Your task to perform on an android device: Open Android settings Image 0: 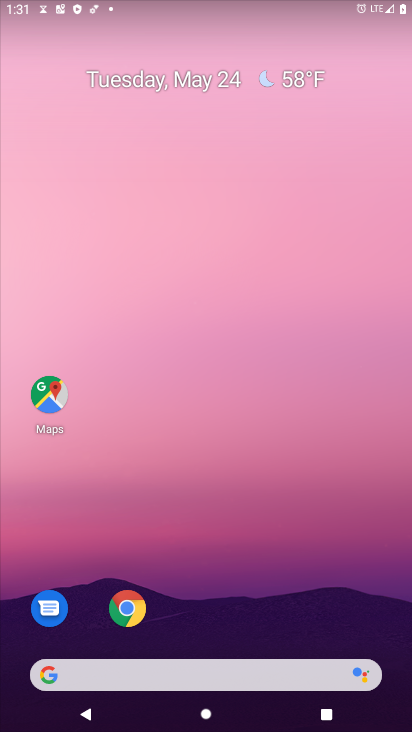
Step 0: press home button
Your task to perform on an android device: Open Android settings Image 1: 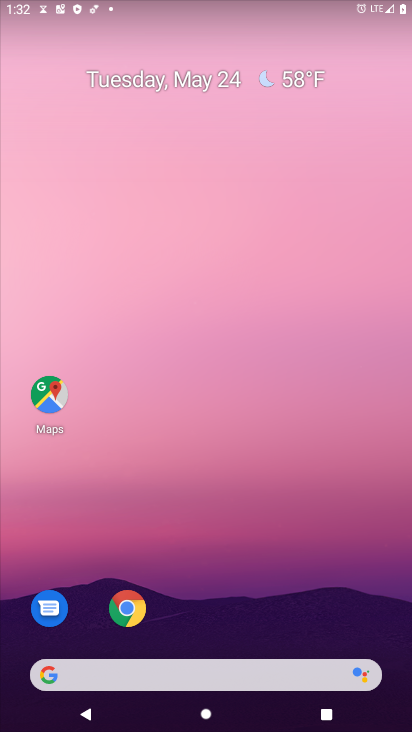
Step 1: drag from (304, 690) to (208, 201)
Your task to perform on an android device: Open Android settings Image 2: 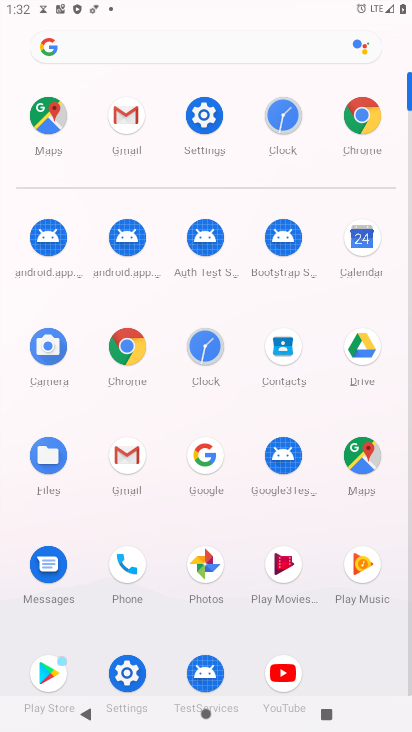
Step 2: click (197, 125)
Your task to perform on an android device: Open Android settings Image 3: 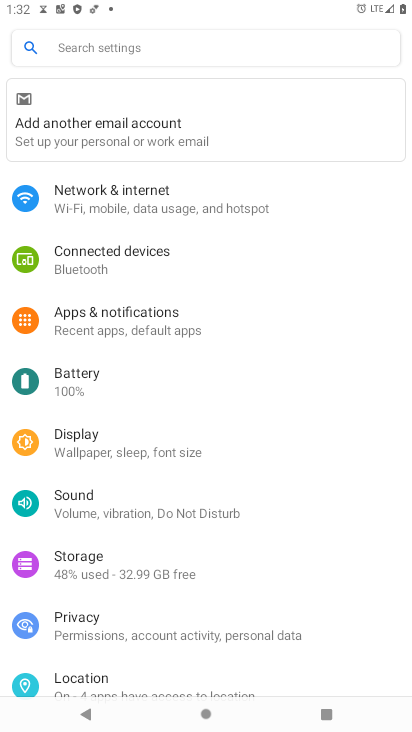
Step 3: click (121, 51)
Your task to perform on an android device: Open Android settings Image 4: 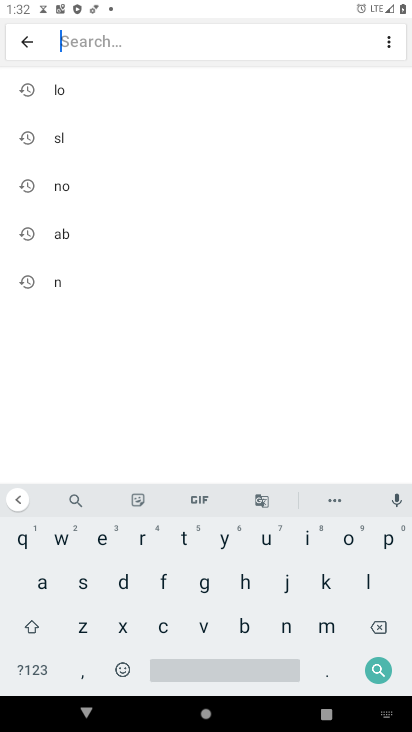
Step 4: click (41, 580)
Your task to perform on an android device: Open Android settings Image 5: 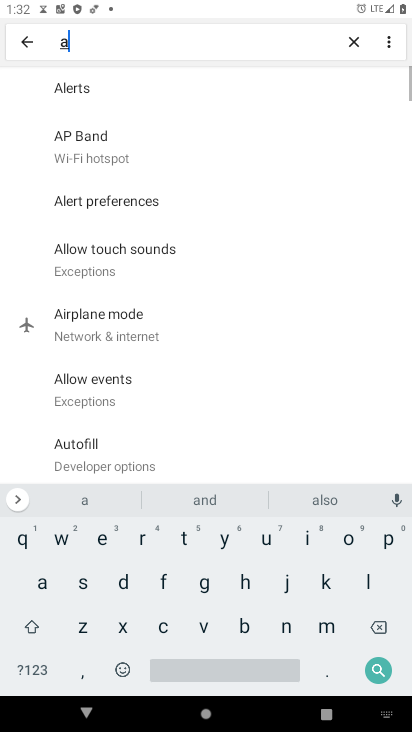
Step 5: click (282, 630)
Your task to perform on an android device: Open Android settings Image 6: 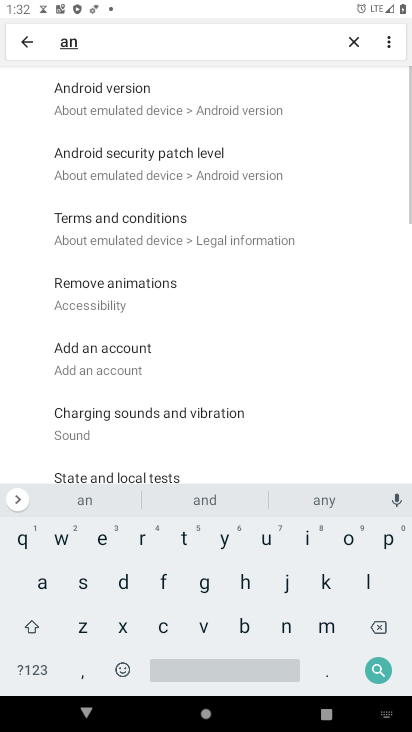
Step 6: click (139, 102)
Your task to perform on an android device: Open Android settings Image 7: 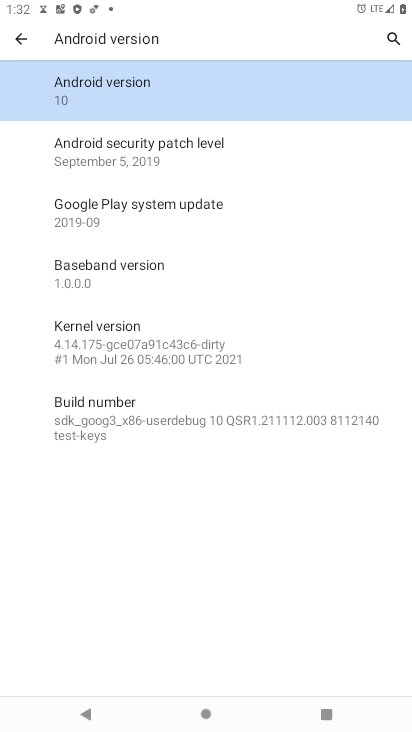
Step 7: task complete